Your task to perform on an android device: Search for seafood restaurants on Google Maps Image 0: 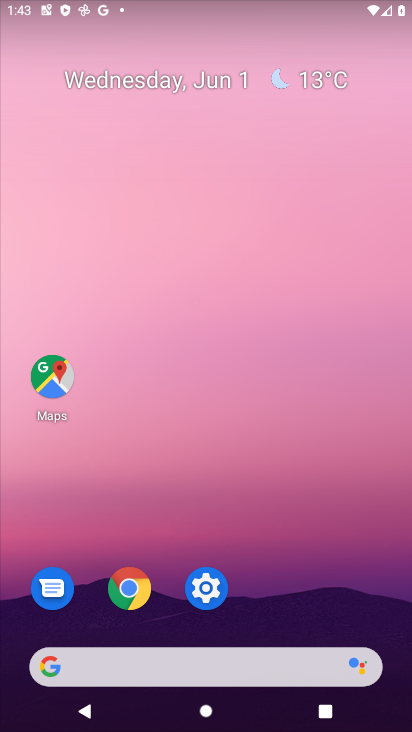
Step 0: press home button
Your task to perform on an android device: Search for seafood restaurants on Google Maps Image 1: 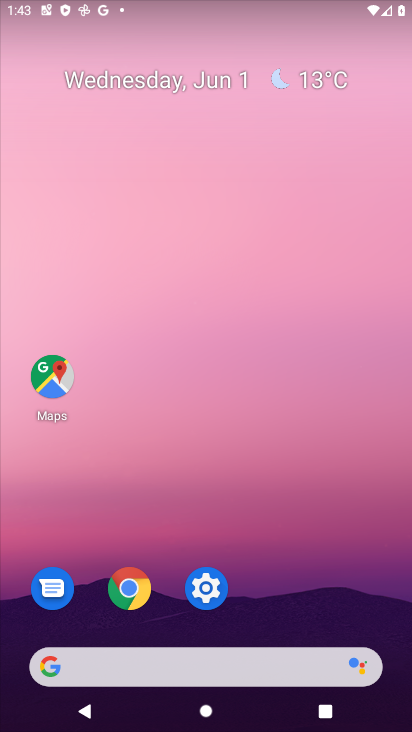
Step 1: click (40, 408)
Your task to perform on an android device: Search for seafood restaurants on Google Maps Image 2: 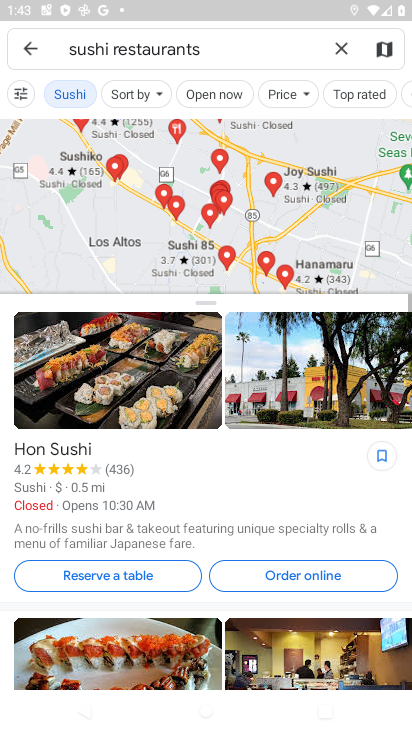
Step 2: click (337, 55)
Your task to perform on an android device: Search for seafood restaurants on Google Maps Image 3: 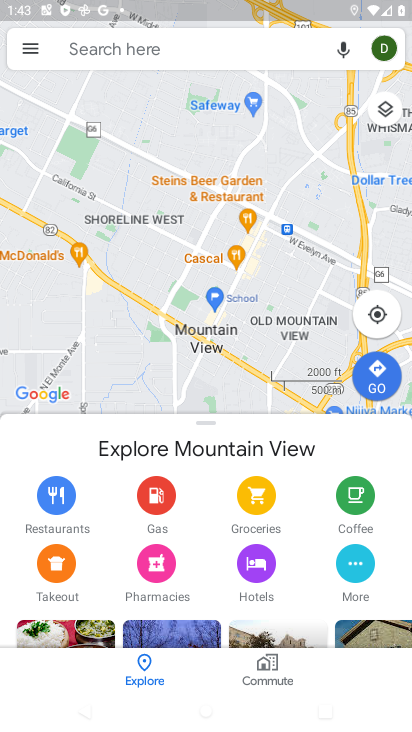
Step 3: click (103, 59)
Your task to perform on an android device: Search for seafood restaurants on Google Maps Image 4: 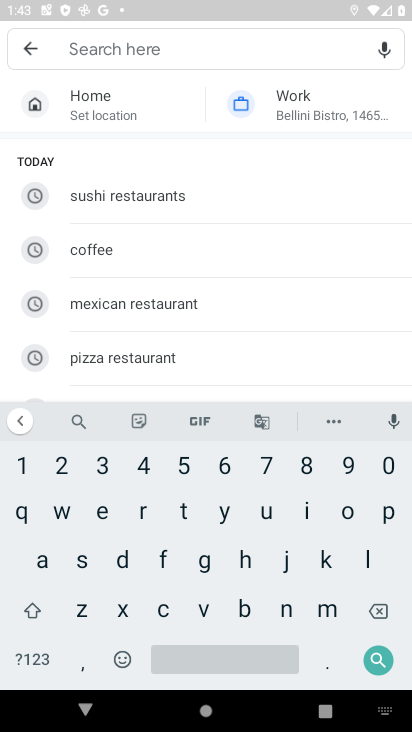
Step 4: click (79, 554)
Your task to perform on an android device: Search for seafood restaurants on Google Maps Image 5: 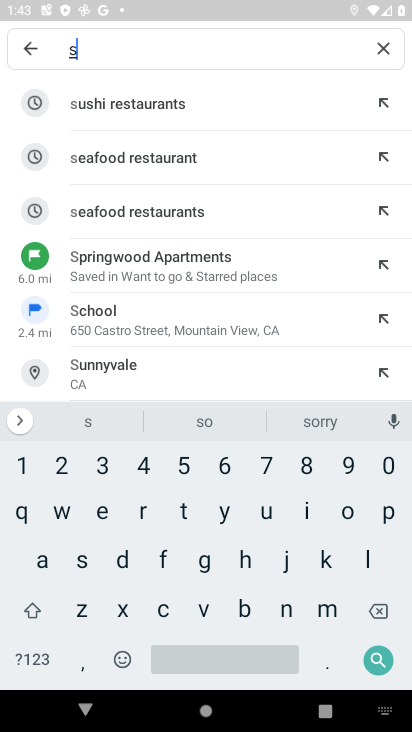
Step 5: click (99, 157)
Your task to perform on an android device: Search for seafood restaurants on Google Maps Image 6: 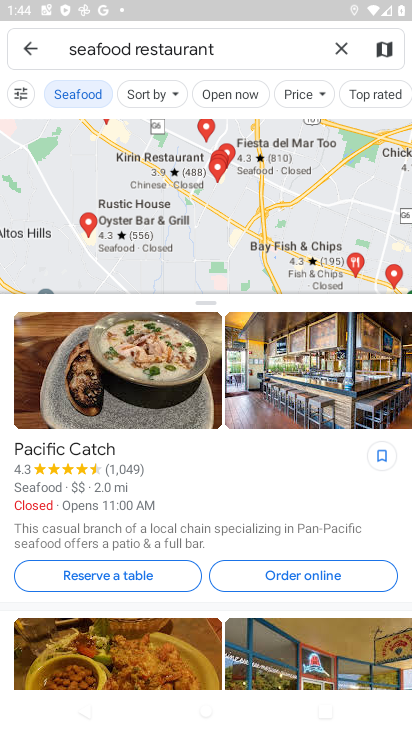
Step 6: task complete